Your task to perform on an android device: check google app version Image 0: 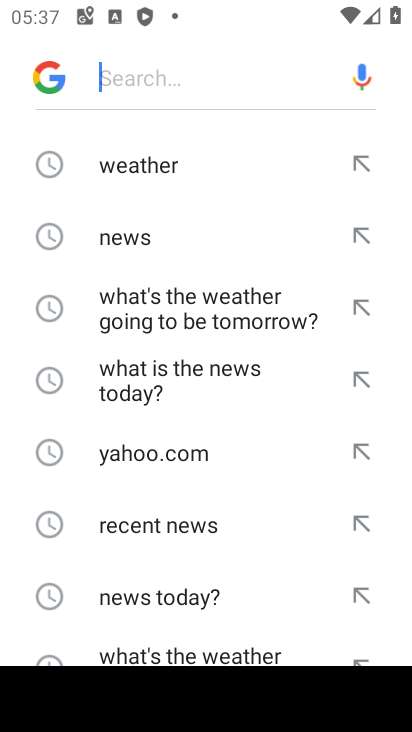
Step 0: press home button
Your task to perform on an android device: check google app version Image 1: 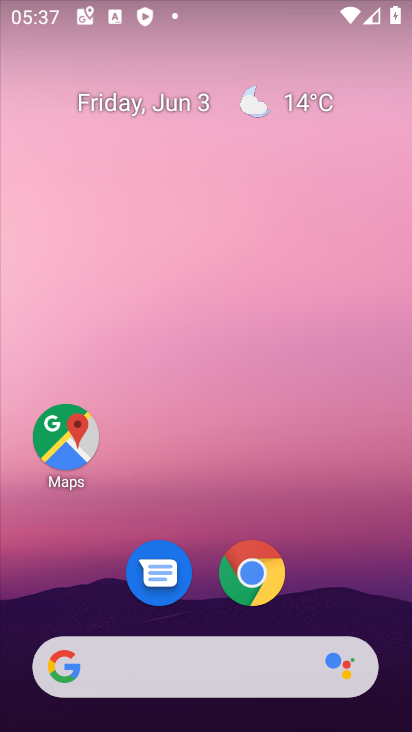
Step 1: drag from (267, 630) to (330, 12)
Your task to perform on an android device: check google app version Image 2: 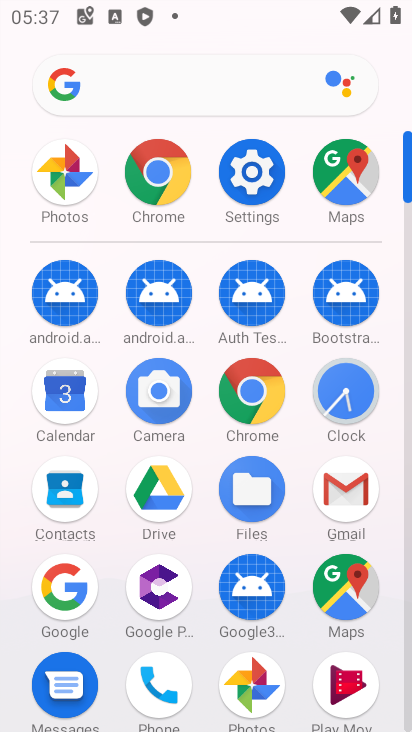
Step 2: click (281, 387)
Your task to perform on an android device: check google app version Image 3: 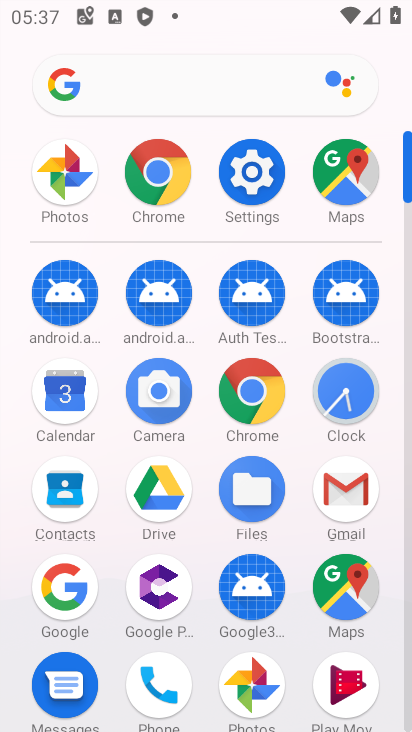
Step 3: click (255, 402)
Your task to perform on an android device: check google app version Image 4: 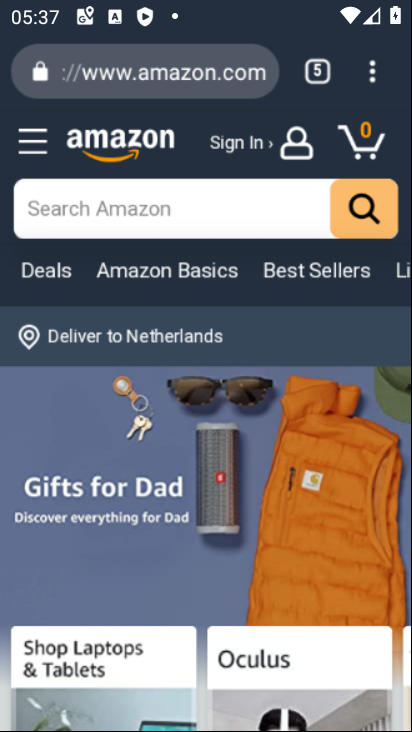
Step 4: drag from (362, 67) to (215, 630)
Your task to perform on an android device: check google app version Image 5: 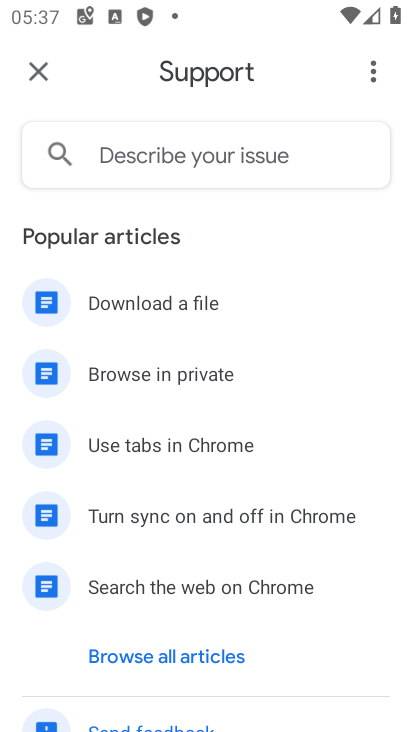
Step 5: click (378, 64)
Your task to perform on an android device: check google app version Image 6: 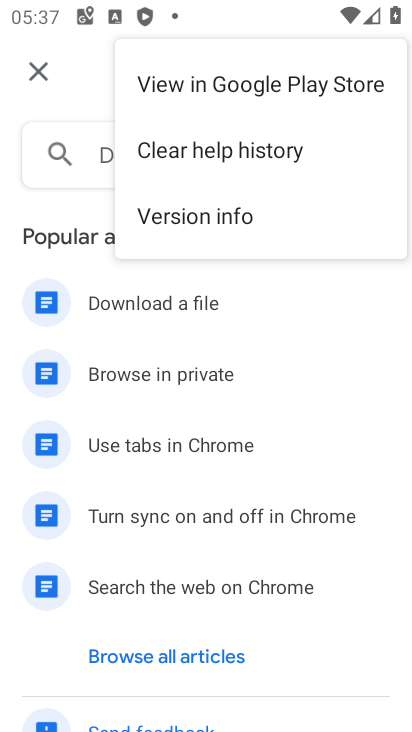
Step 6: click (322, 223)
Your task to perform on an android device: check google app version Image 7: 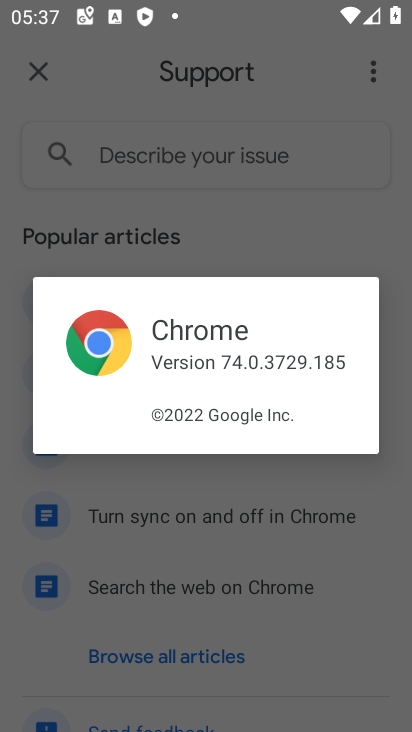
Step 7: task complete